Your task to perform on an android device: Show me the alarms in the clock app Image 0: 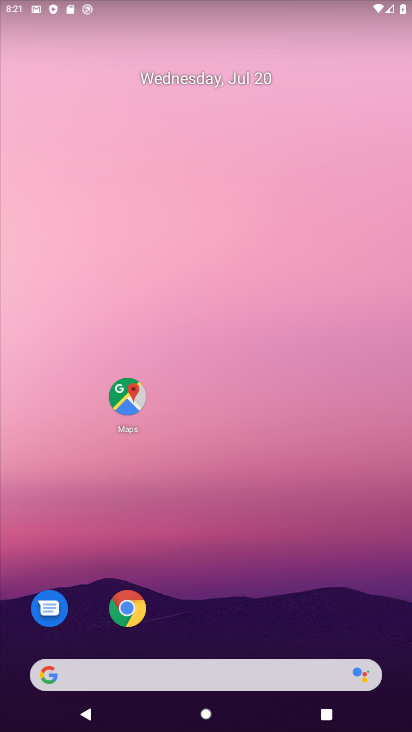
Step 0: drag from (10, 662) to (266, 102)
Your task to perform on an android device: Show me the alarms in the clock app Image 1: 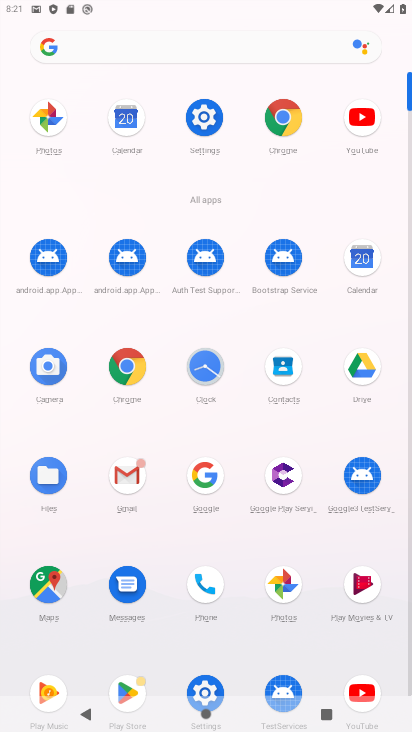
Step 1: click (195, 384)
Your task to perform on an android device: Show me the alarms in the clock app Image 2: 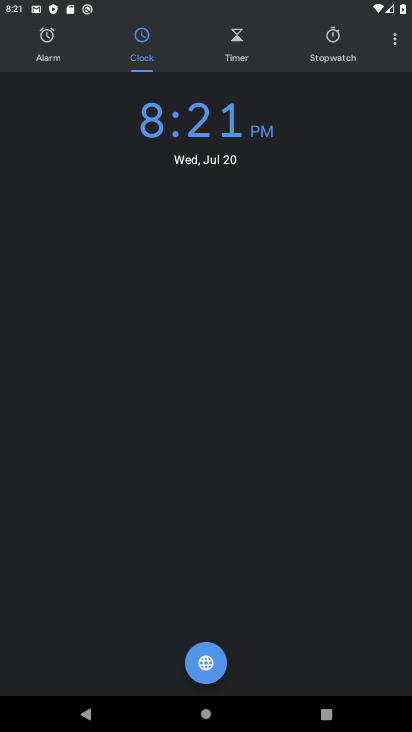
Step 2: click (51, 43)
Your task to perform on an android device: Show me the alarms in the clock app Image 3: 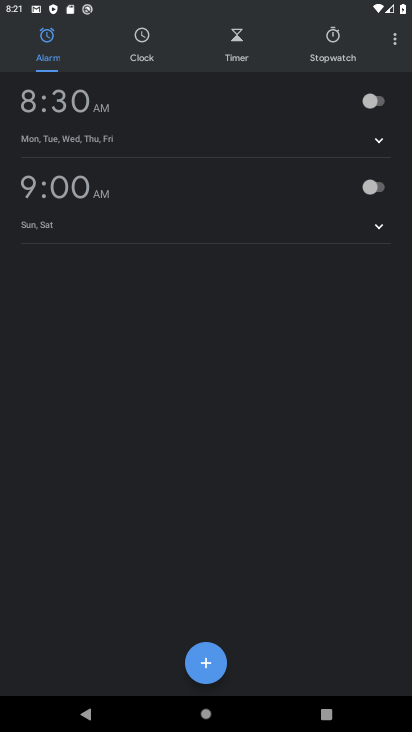
Step 3: task complete